Your task to perform on an android device: Open the map Image 0: 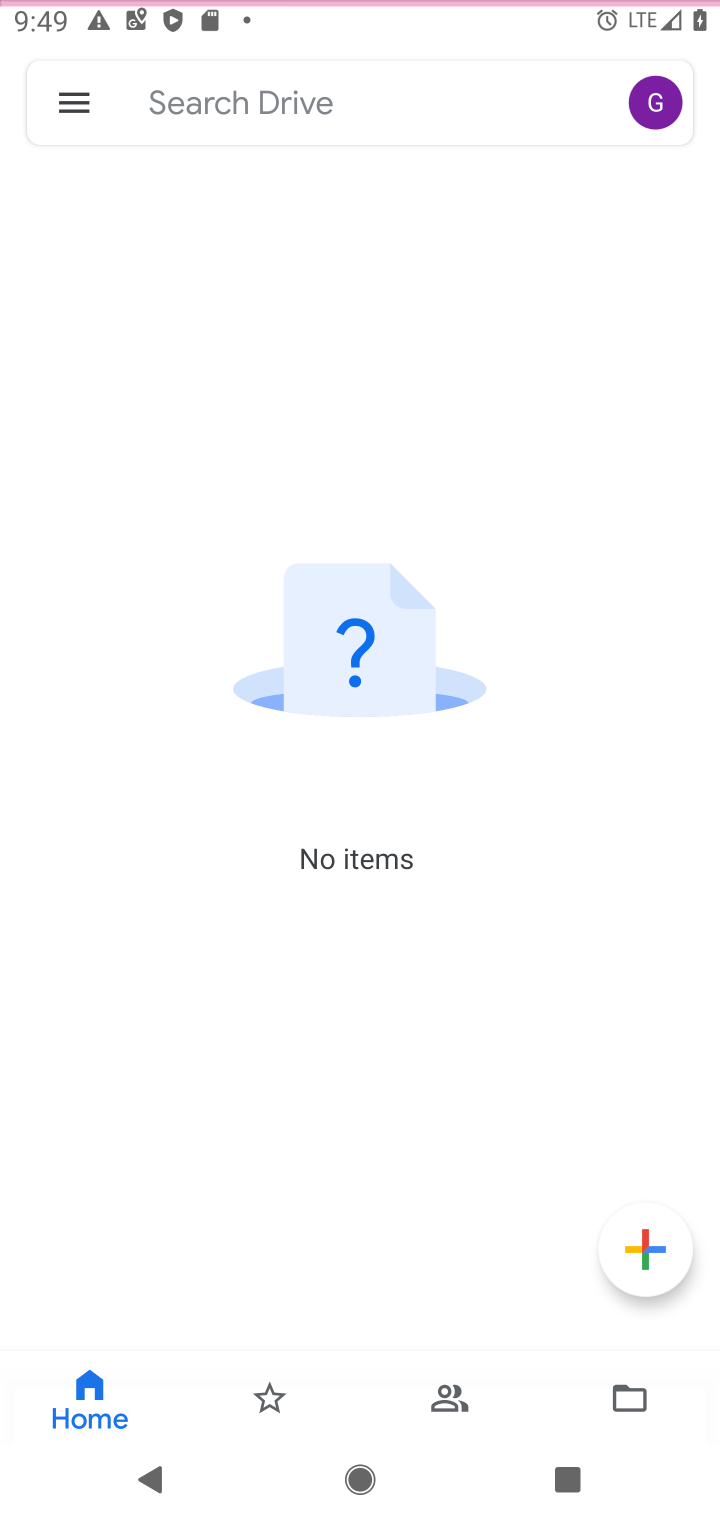
Step 0: press home button
Your task to perform on an android device: Open the map Image 1: 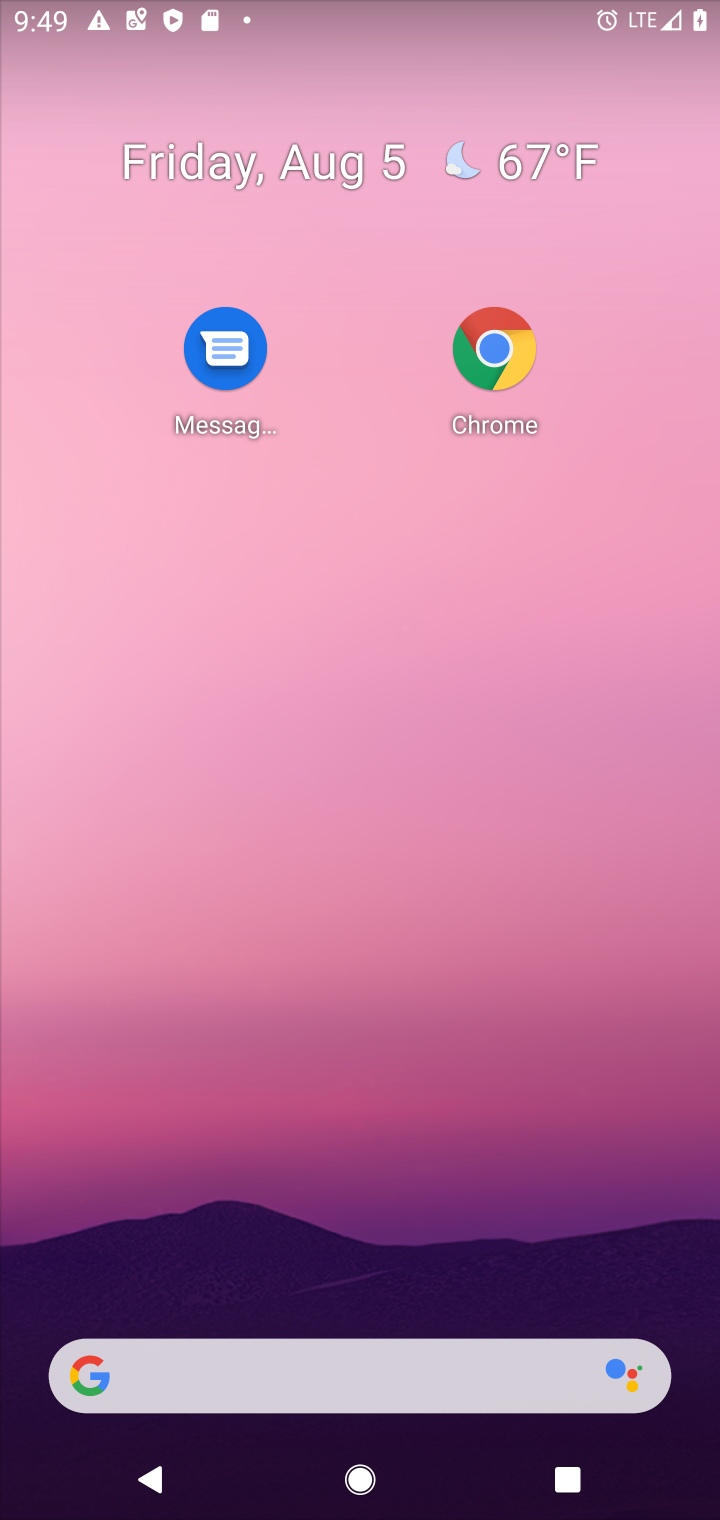
Step 1: drag from (524, 773) to (448, 513)
Your task to perform on an android device: Open the map Image 2: 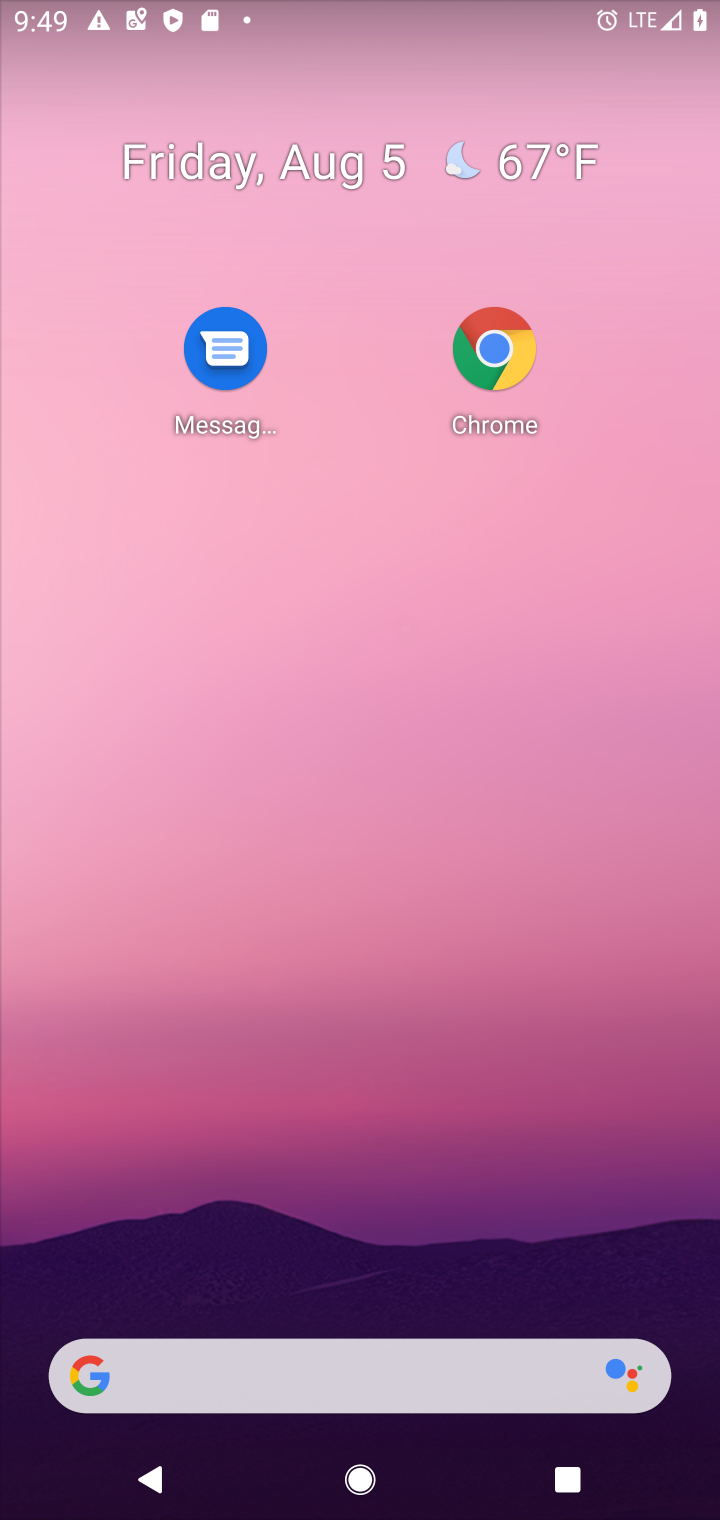
Step 2: drag from (380, 1179) to (288, 498)
Your task to perform on an android device: Open the map Image 3: 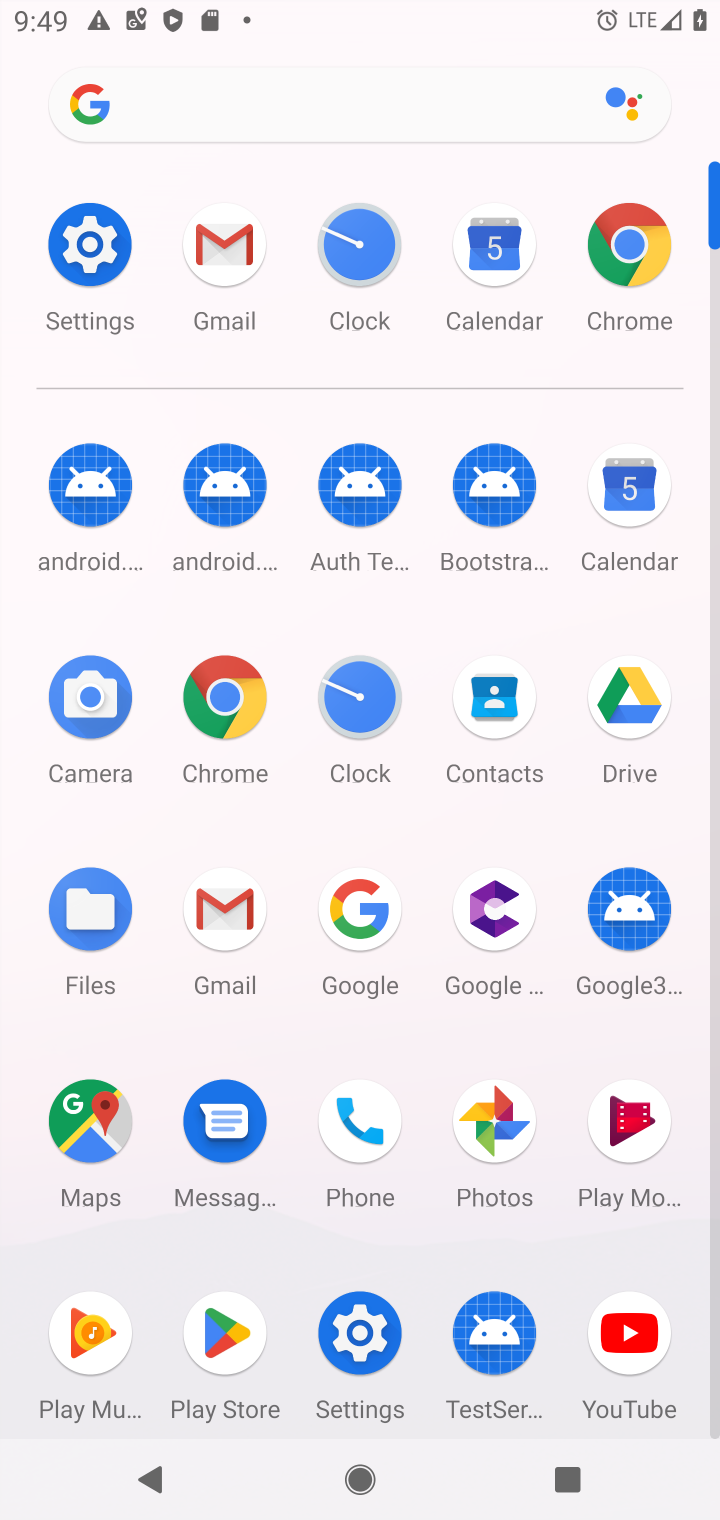
Step 3: click (99, 1112)
Your task to perform on an android device: Open the map Image 4: 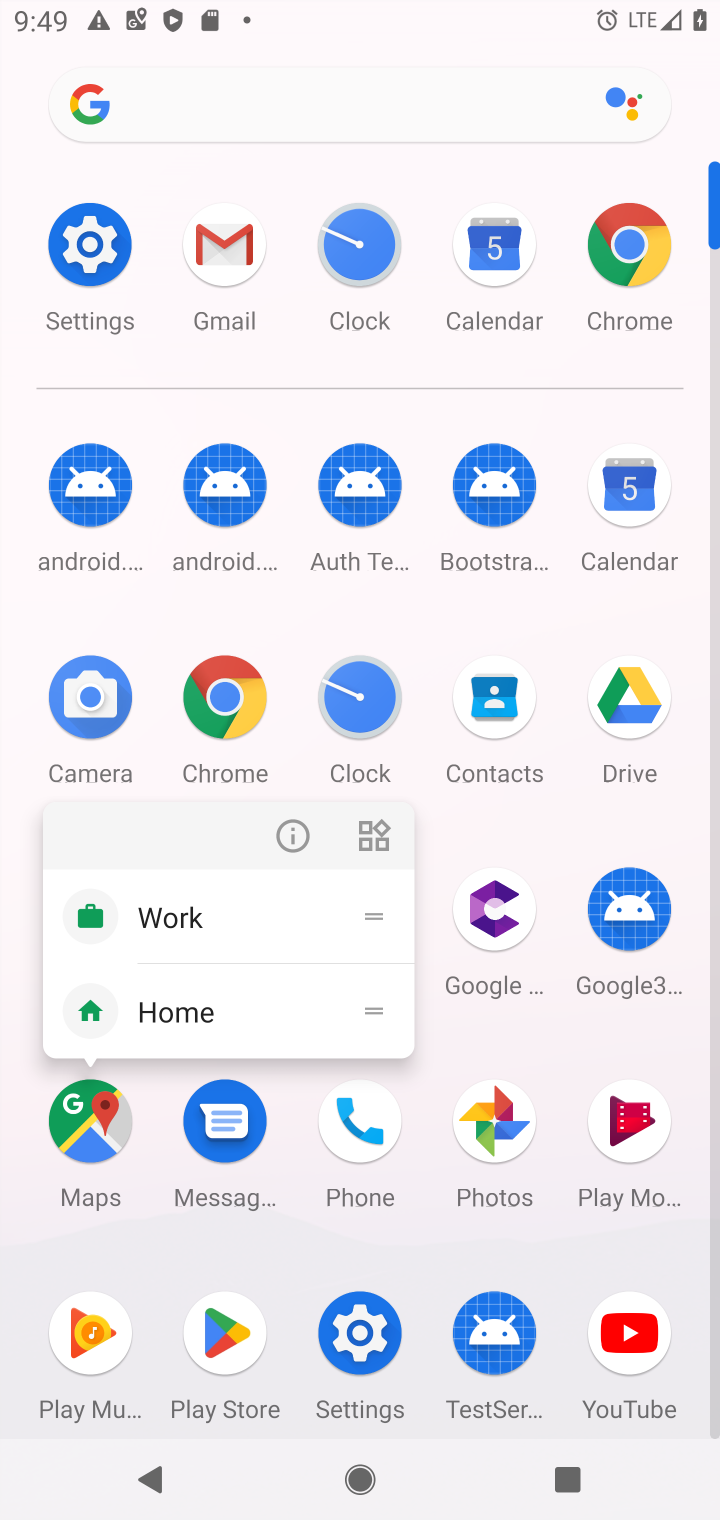
Step 4: click (57, 1138)
Your task to perform on an android device: Open the map Image 5: 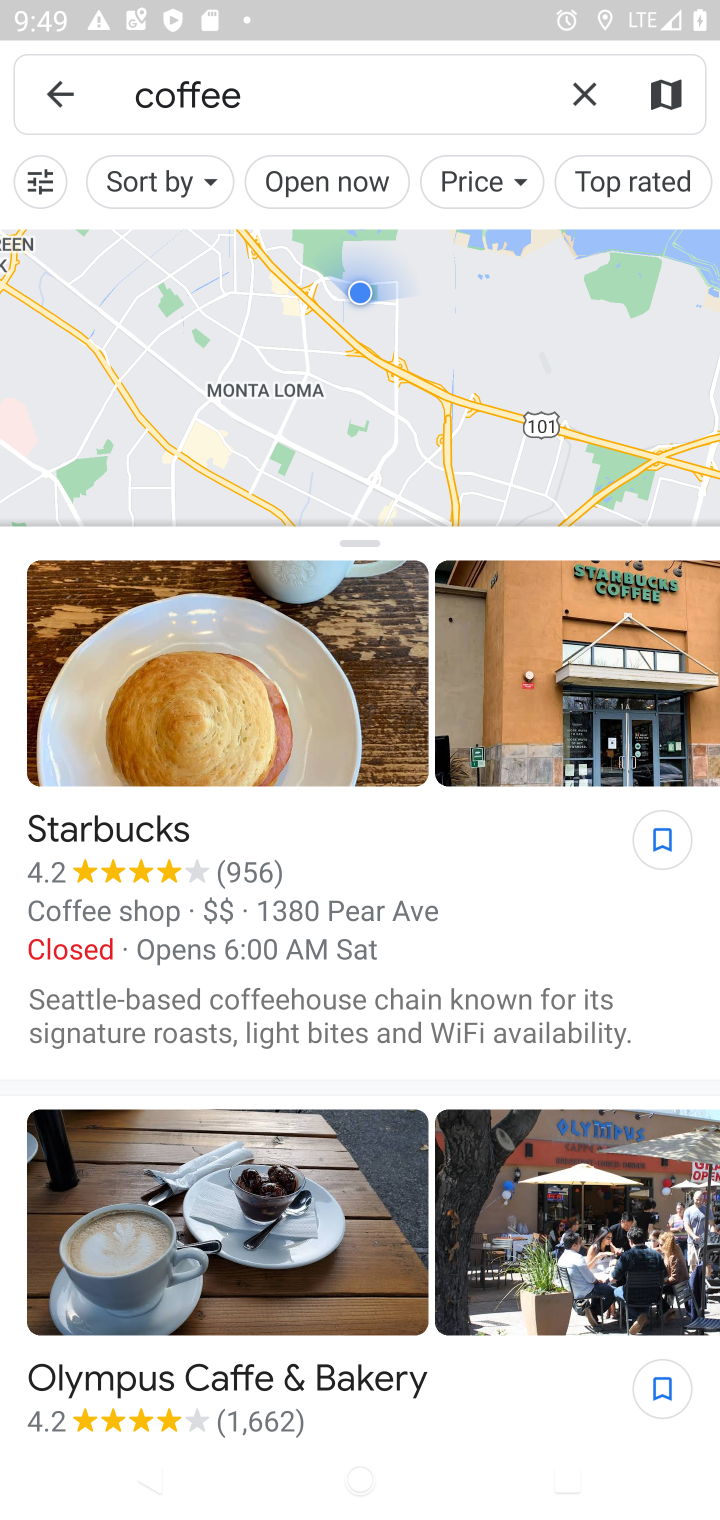
Step 5: click (54, 107)
Your task to perform on an android device: Open the map Image 6: 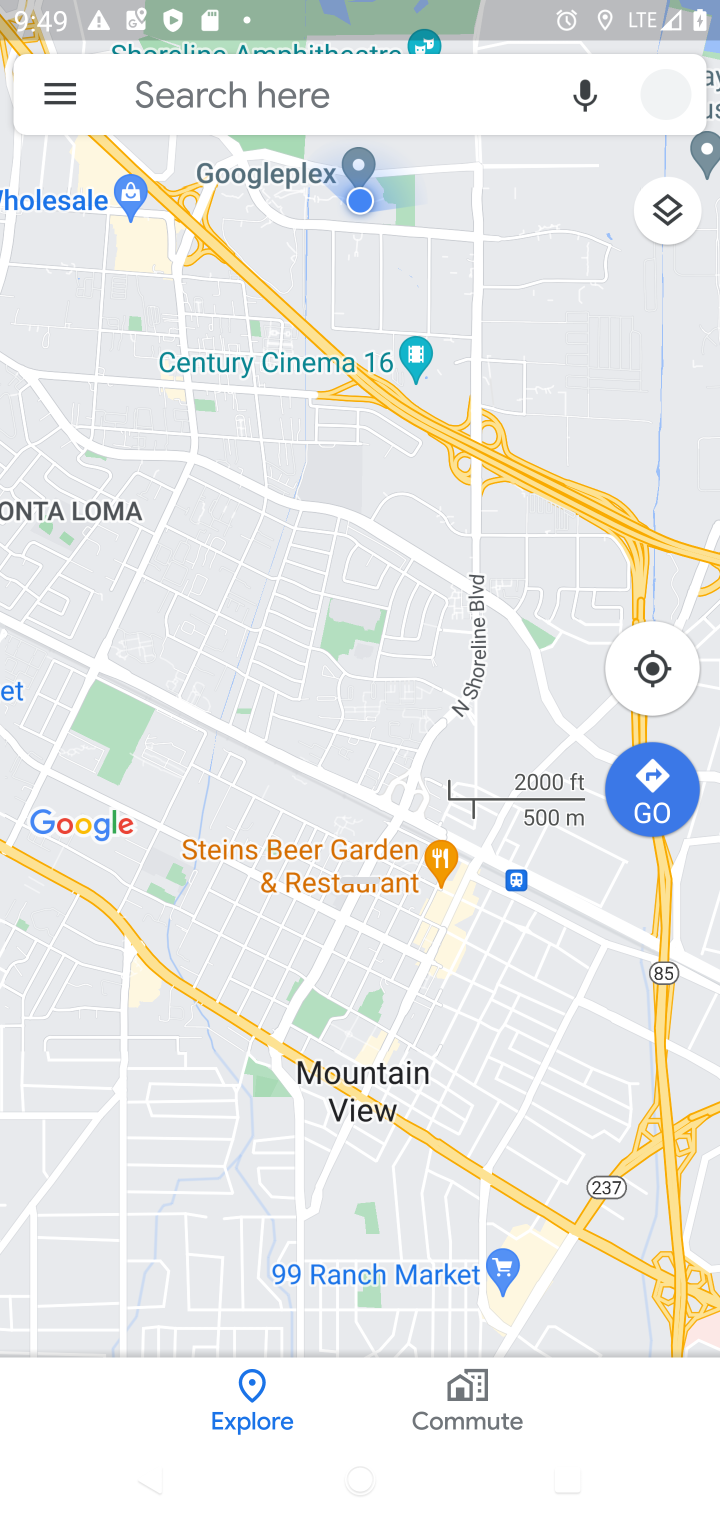
Step 6: click (651, 656)
Your task to perform on an android device: Open the map Image 7: 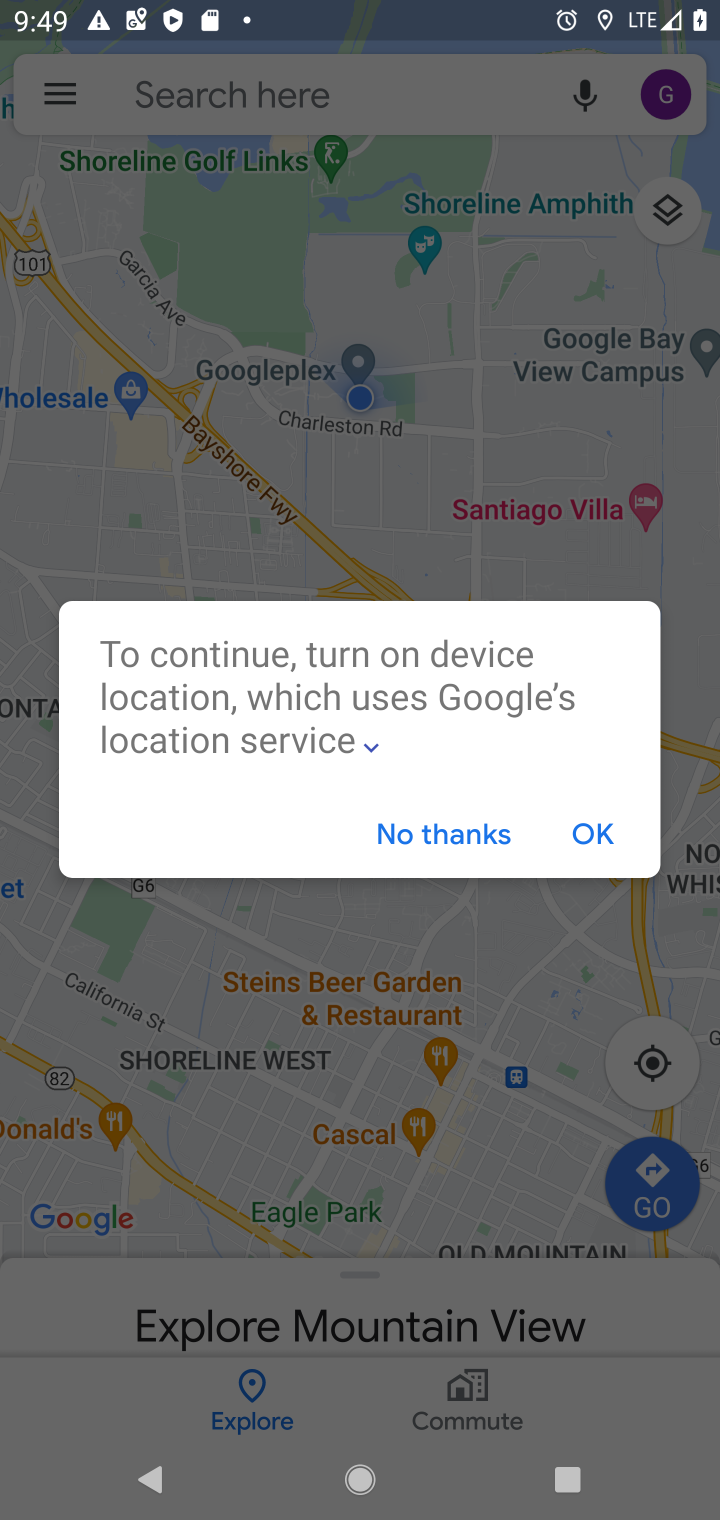
Step 7: click (448, 848)
Your task to perform on an android device: Open the map Image 8: 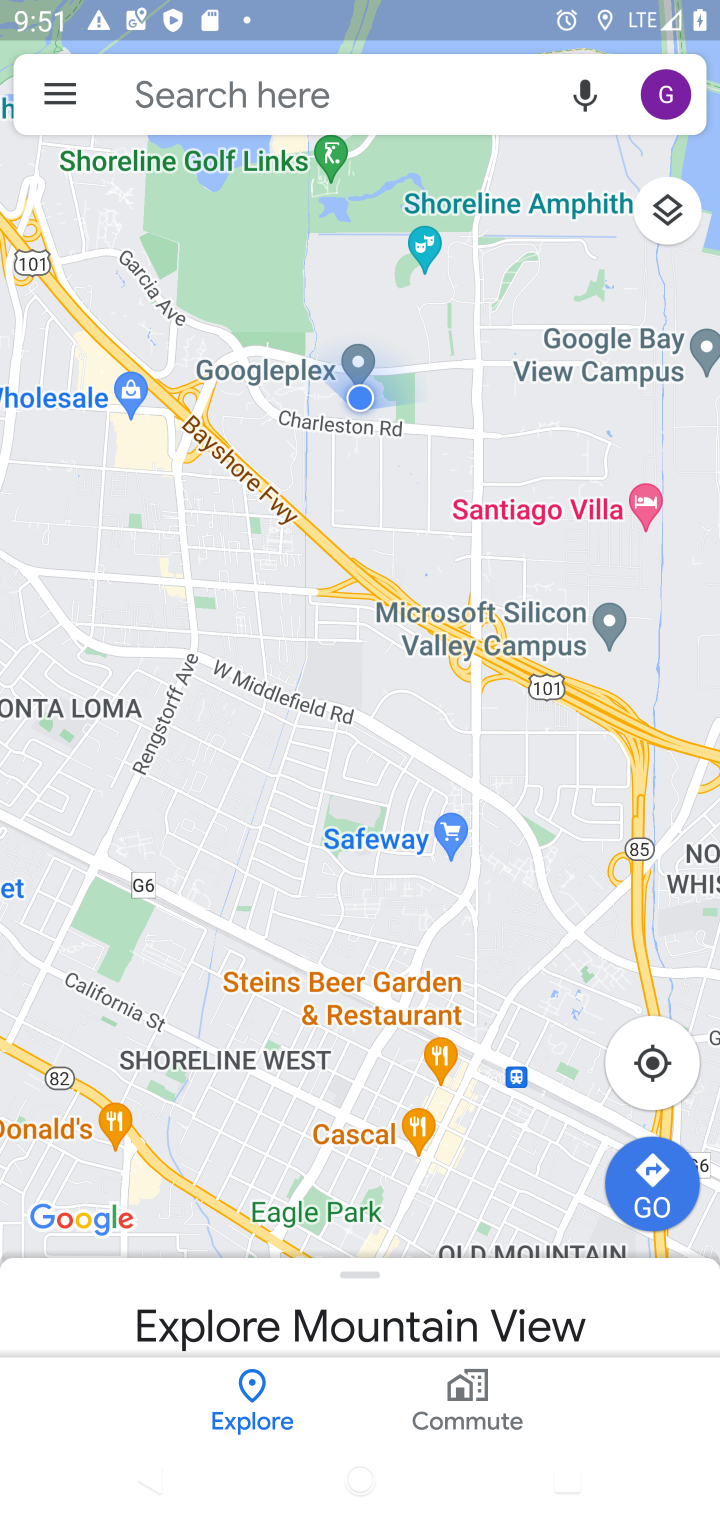
Step 8: task complete